Your task to perform on an android device: open wifi settings Image 0: 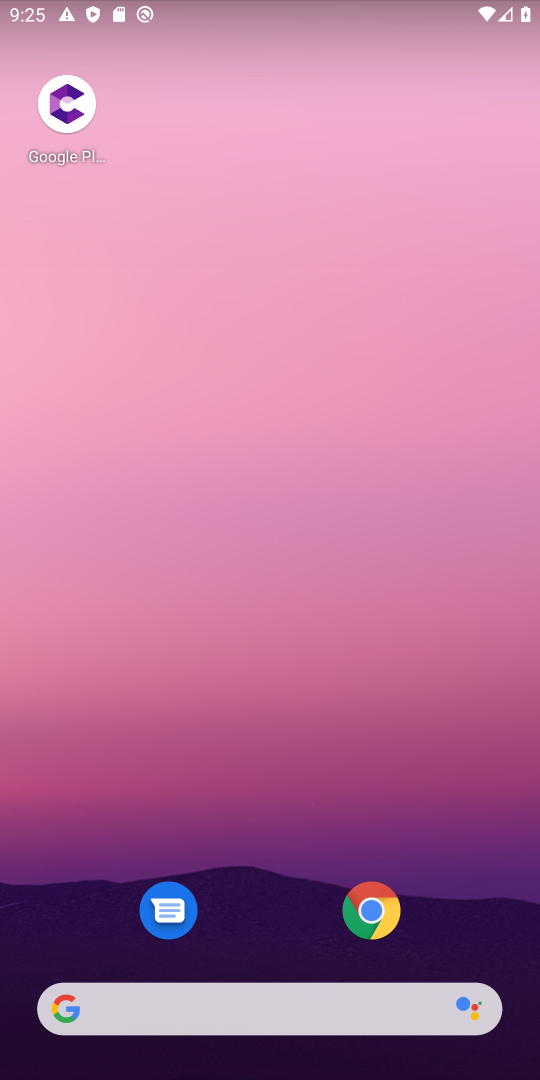
Step 0: drag from (291, 965) to (284, 191)
Your task to perform on an android device: open wifi settings Image 1: 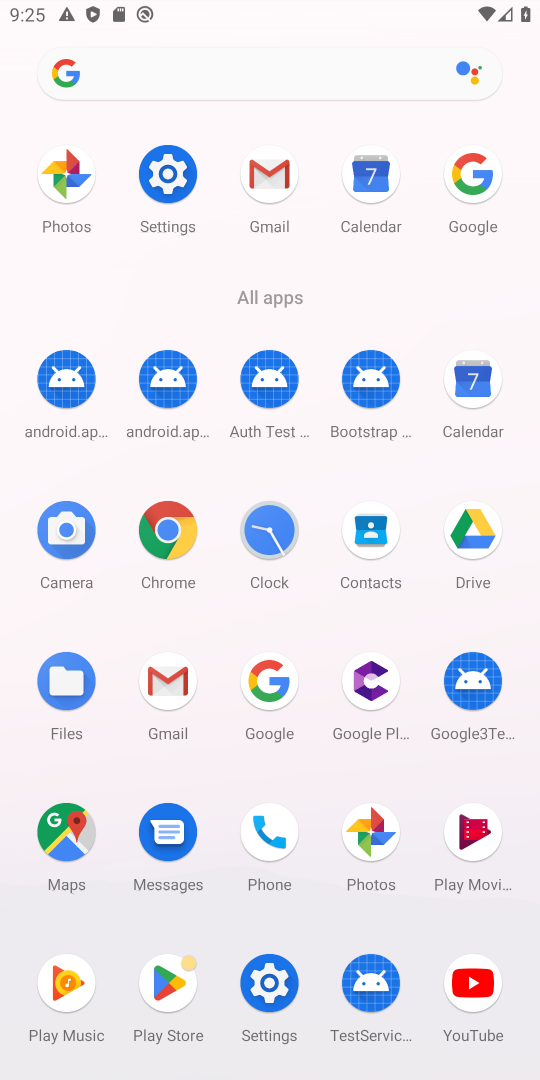
Step 1: click (172, 175)
Your task to perform on an android device: open wifi settings Image 2: 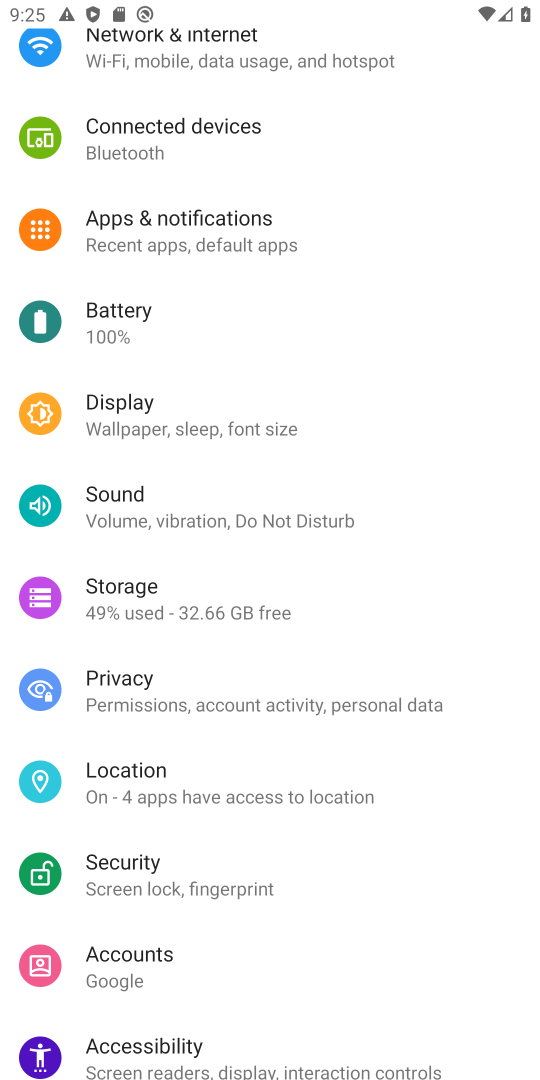
Step 2: click (233, 49)
Your task to perform on an android device: open wifi settings Image 3: 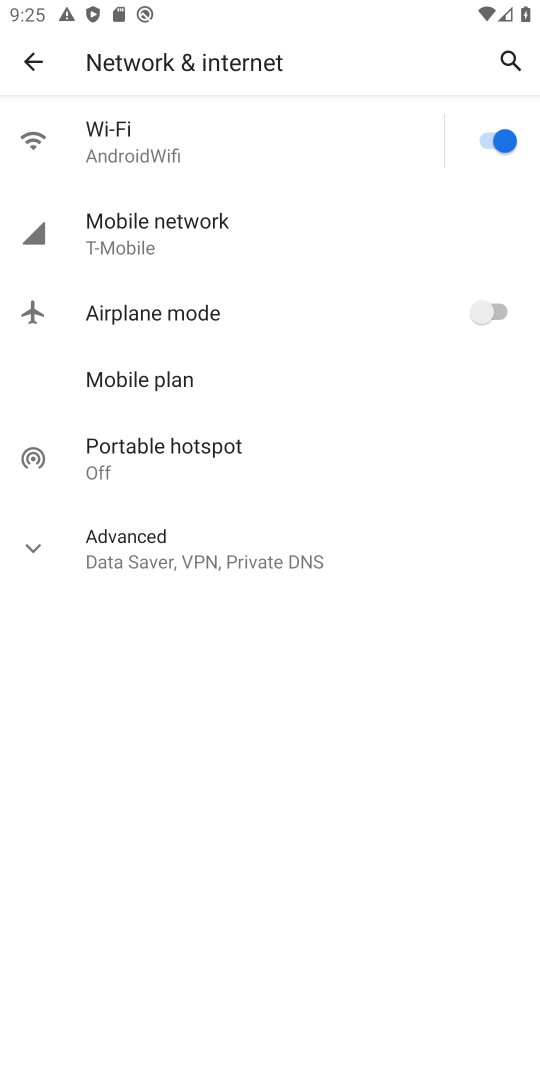
Step 3: click (251, 144)
Your task to perform on an android device: open wifi settings Image 4: 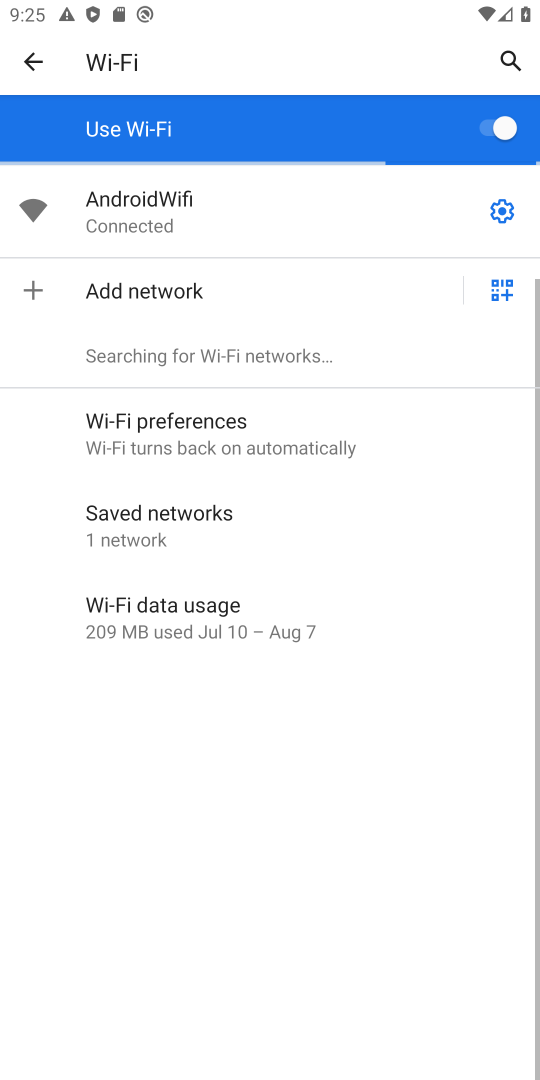
Step 4: click (502, 219)
Your task to perform on an android device: open wifi settings Image 5: 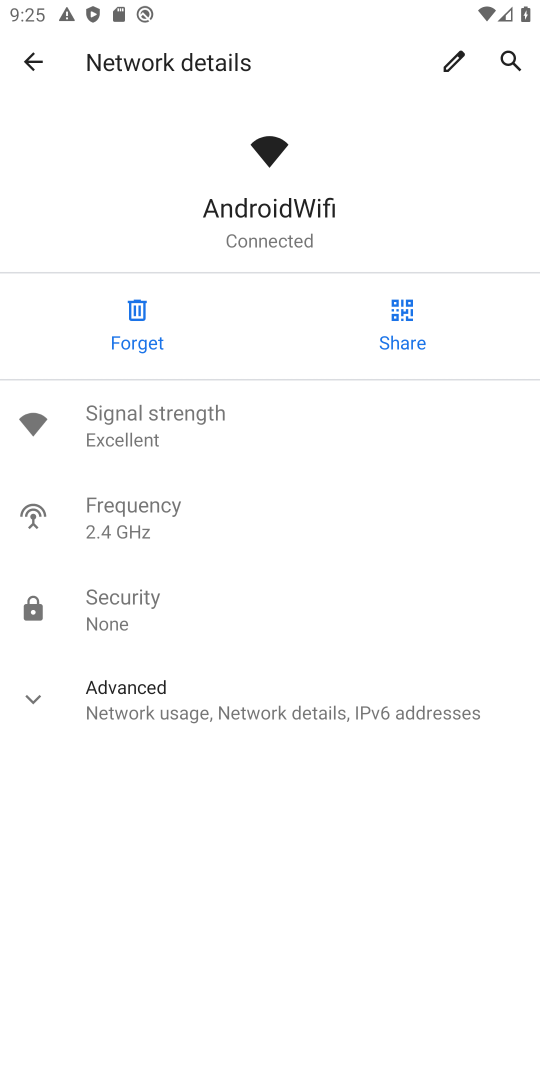
Step 5: task complete